Your task to perform on an android device: toggle improve location accuracy Image 0: 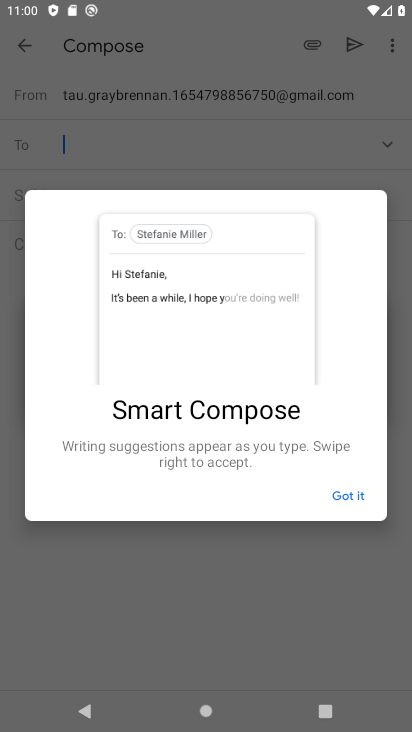
Step 0: press home button
Your task to perform on an android device: toggle improve location accuracy Image 1: 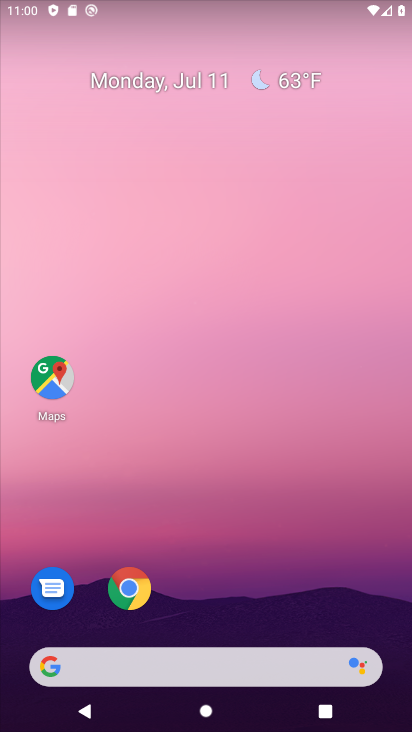
Step 1: drag from (252, 728) to (230, 112)
Your task to perform on an android device: toggle improve location accuracy Image 2: 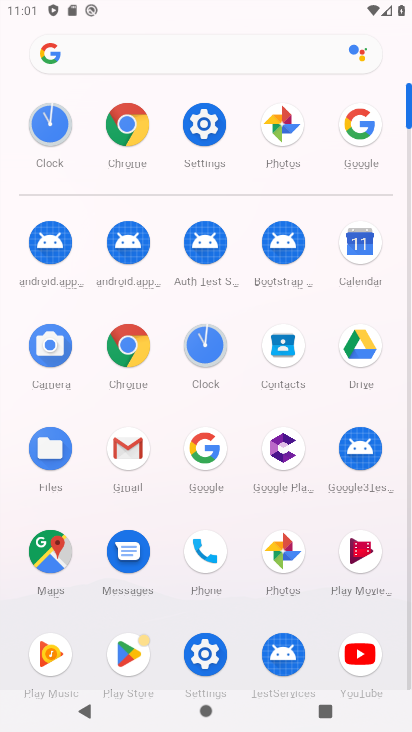
Step 2: click (205, 128)
Your task to perform on an android device: toggle improve location accuracy Image 3: 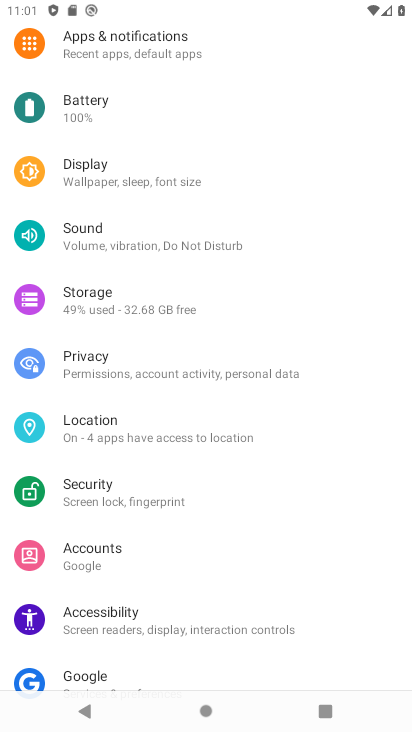
Step 3: click (120, 432)
Your task to perform on an android device: toggle improve location accuracy Image 4: 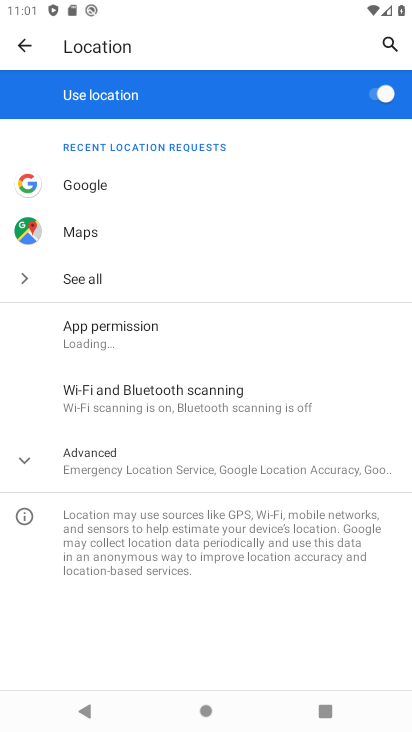
Step 4: click (110, 453)
Your task to perform on an android device: toggle improve location accuracy Image 5: 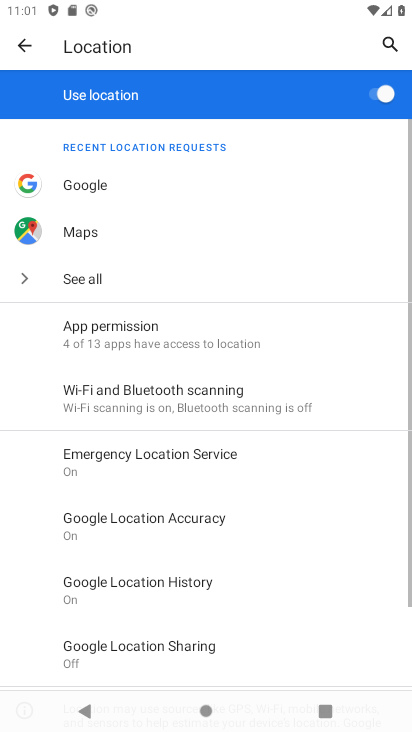
Step 5: click (166, 521)
Your task to perform on an android device: toggle improve location accuracy Image 6: 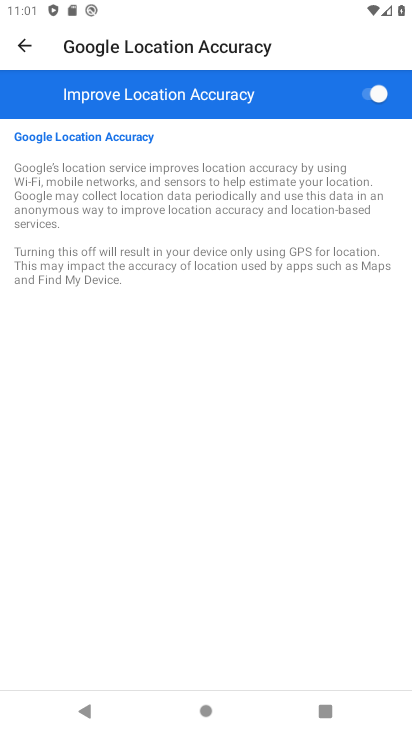
Step 6: click (371, 87)
Your task to perform on an android device: toggle improve location accuracy Image 7: 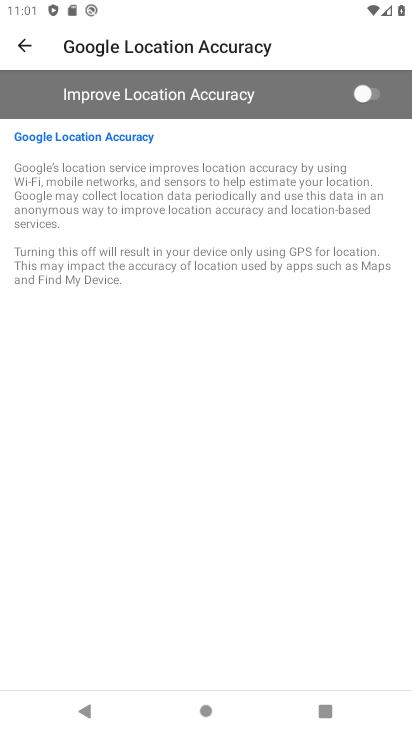
Step 7: task complete